Your task to perform on an android device: turn off wifi Image 0: 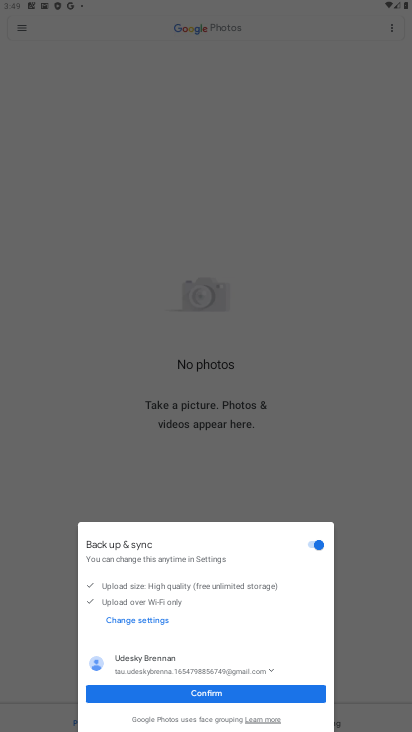
Step 0: press home button
Your task to perform on an android device: turn off wifi Image 1: 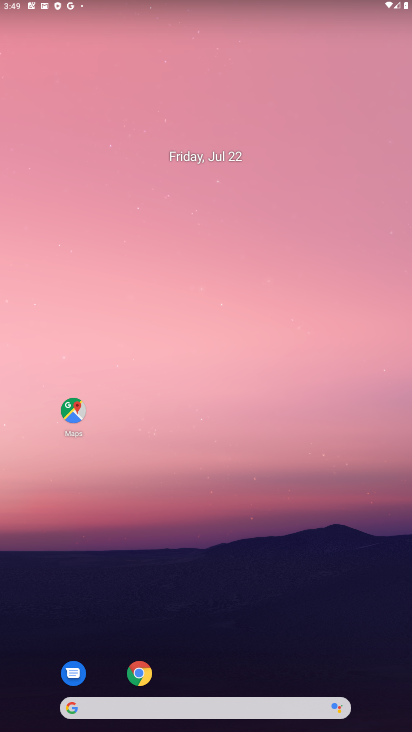
Step 1: drag from (260, 600) to (315, 94)
Your task to perform on an android device: turn off wifi Image 2: 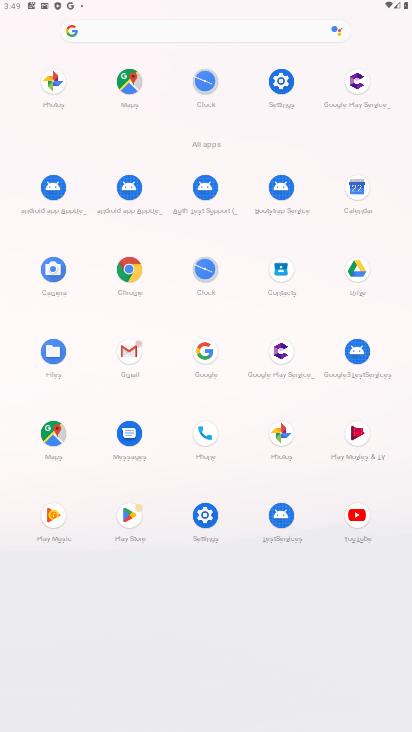
Step 2: click (276, 80)
Your task to perform on an android device: turn off wifi Image 3: 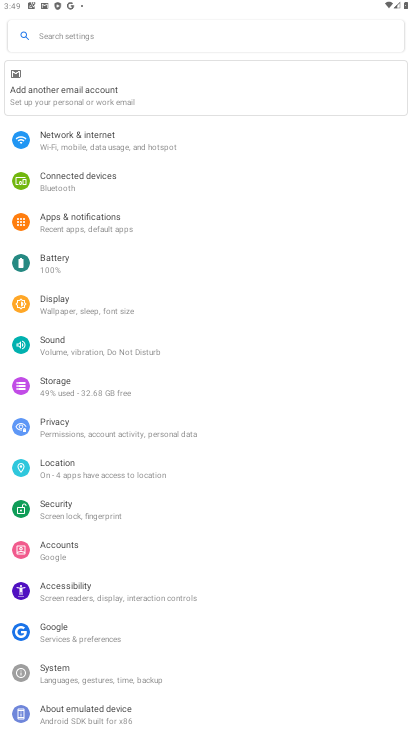
Step 3: click (106, 135)
Your task to perform on an android device: turn off wifi Image 4: 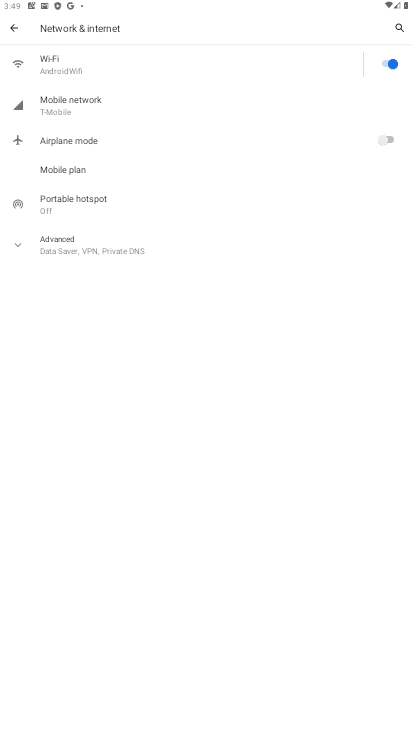
Step 4: click (375, 73)
Your task to perform on an android device: turn off wifi Image 5: 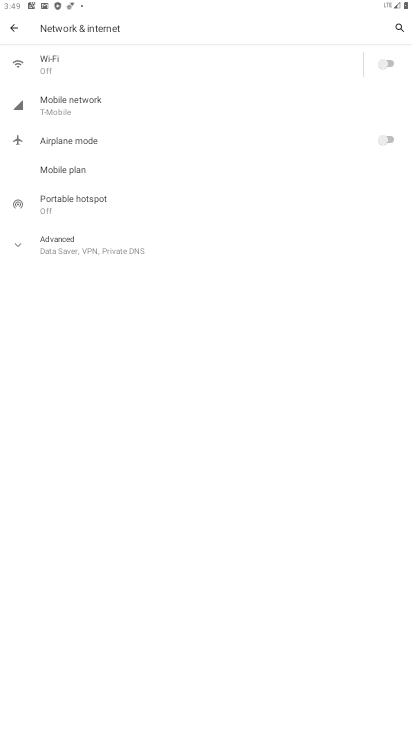
Step 5: task complete